Your task to perform on an android device: change keyboard looks Image 0: 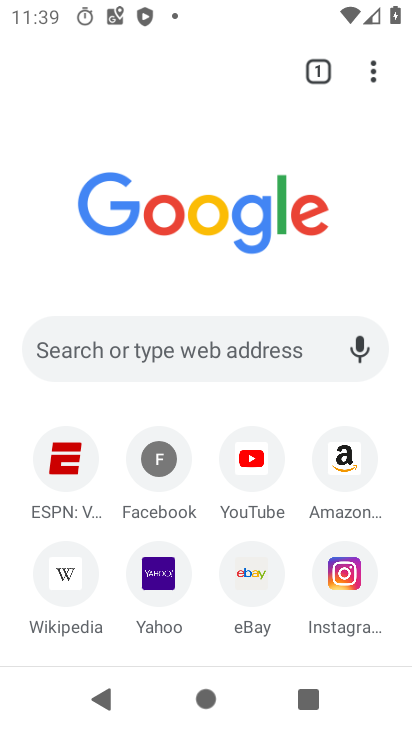
Step 0: press home button
Your task to perform on an android device: change keyboard looks Image 1: 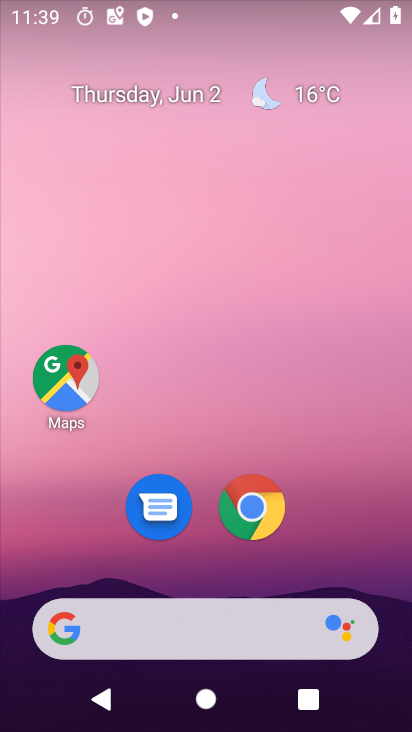
Step 1: click (390, 639)
Your task to perform on an android device: change keyboard looks Image 2: 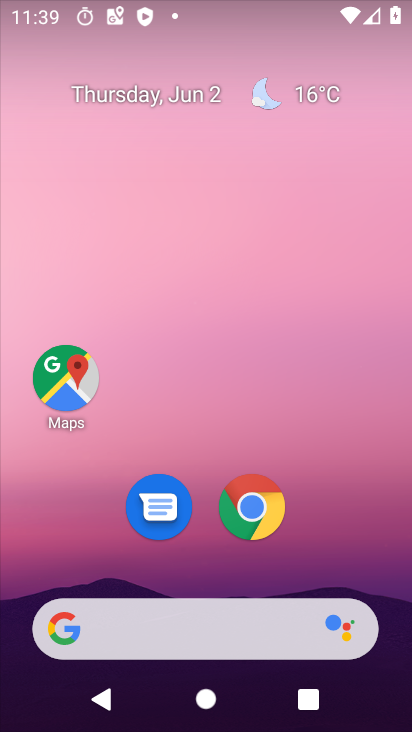
Step 2: drag from (402, 636) to (285, 47)
Your task to perform on an android device: change keyboard looks Image 3: 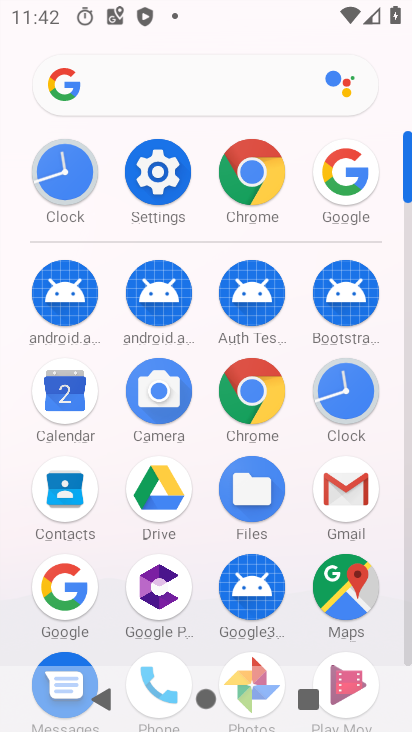
Step 3: click (155, 176)
Your task to perform on an android device: change keyboard looks Image 4: 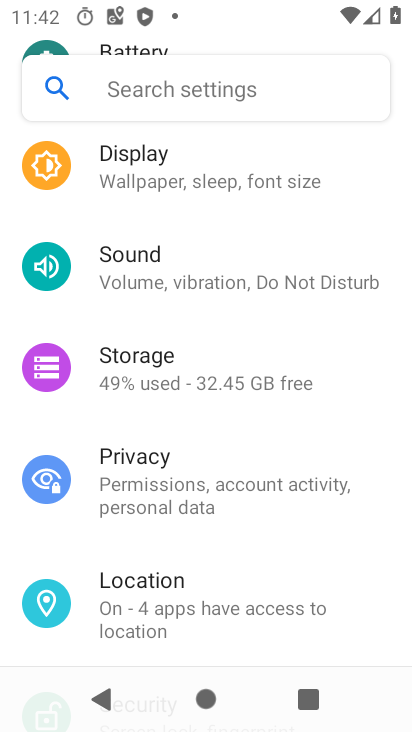
Step 4: click (230, 614)
Your task to perform on an android device: change keyboard looks Image 5: 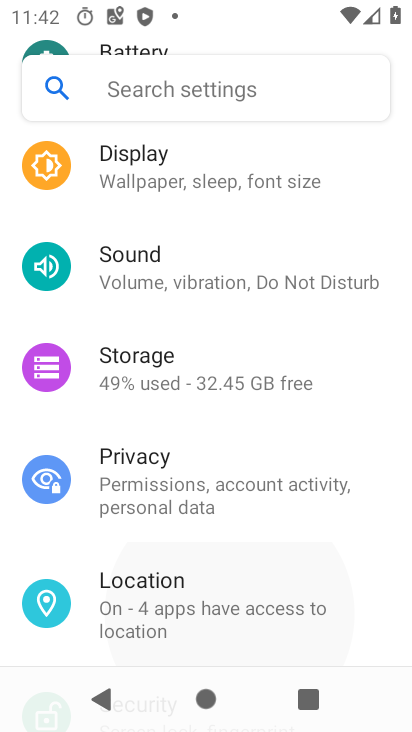
Step 5: drag from (248, 416) to (205, 36)
Your task to perform on an android device: change keyboard looks Image 6: 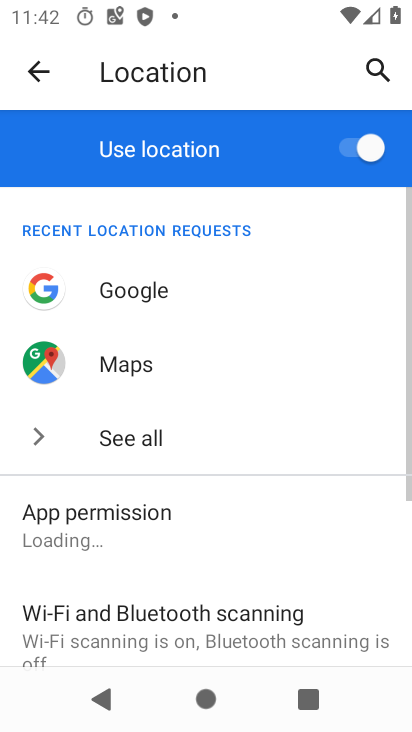
Step 6: press back button
Your task to perform on an android device: change keyboard looks Image 7: 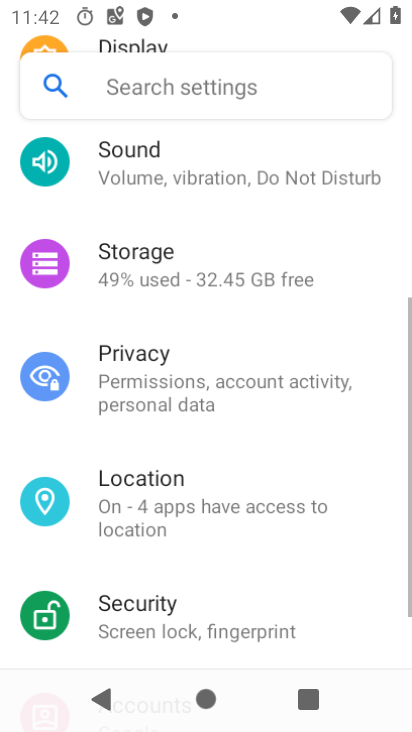
Step 7: click (178, 600)
Your task to perform on an android device: change keyboard looks Image 8: 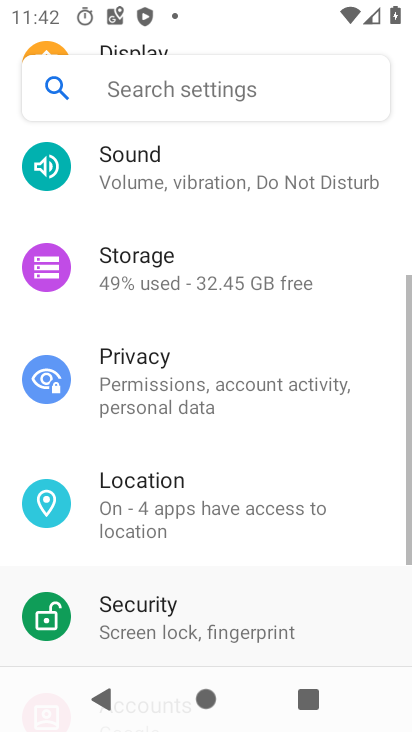
Step 8: drag from (207, 170) to (206, 118)
Your task to perform on an android device: change keyboard looks Image 9: 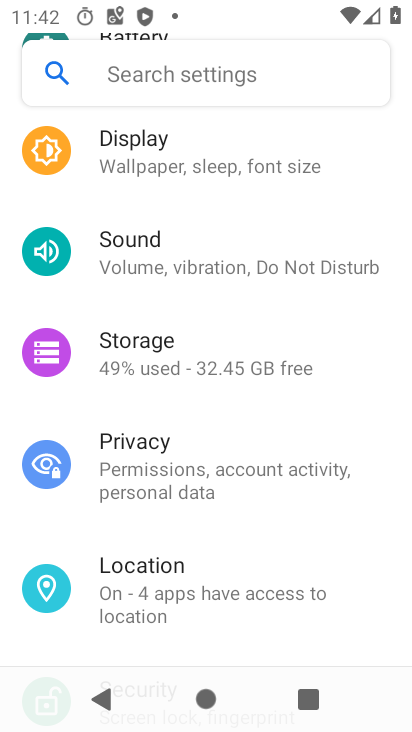
Step 9: drag from (227, 601) to (232, 57)
Your task to perform on an android device: change keyboard looks Image 10: 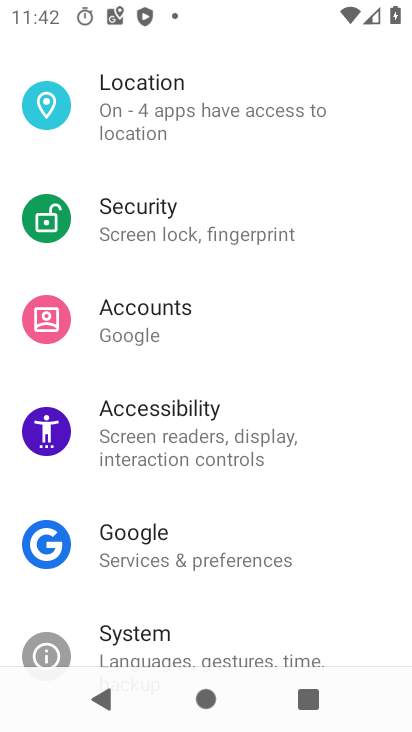
Step 10: drag from (230, 385) to (211, 54)
Your task to perform on an android device: change keyboard looks Image 11: 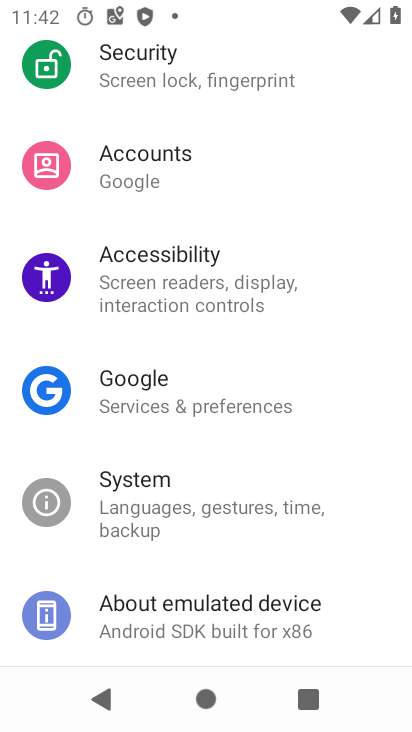
Step 11: click (167, 538)
Your task to perform on an android device: change keyboard looks Image 12: 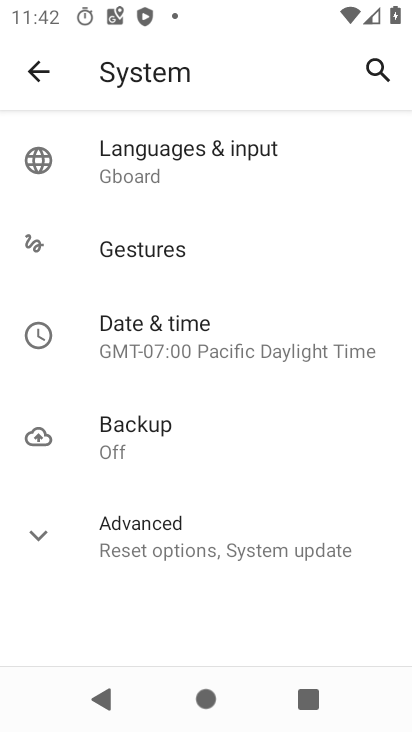
Step 12: click (198, 187)
Your task to perform on an android device: change keyboard looks Image 13: 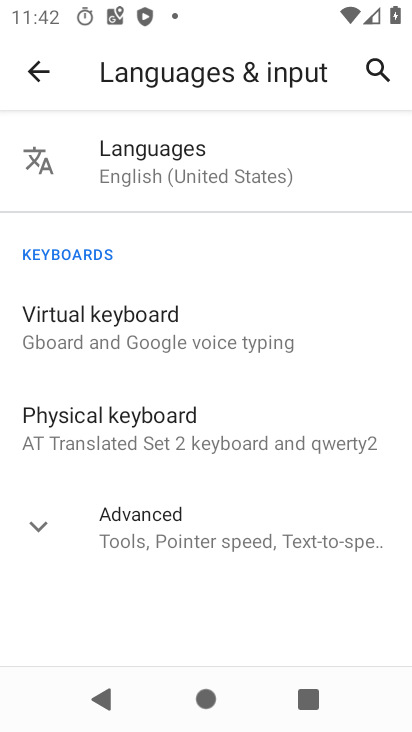
Step 13: click (132, 377)
Your task to perform on an android device: change keyboard looks Image 14: 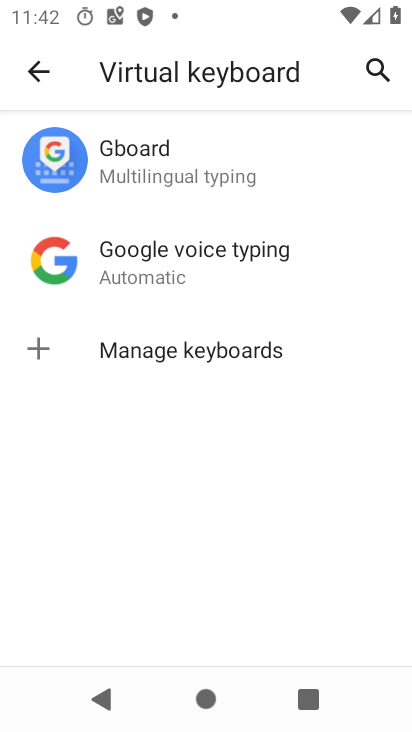
Step 14: click (246, 188)
Your task to perform on an android device: change keyboard looks Image 15: 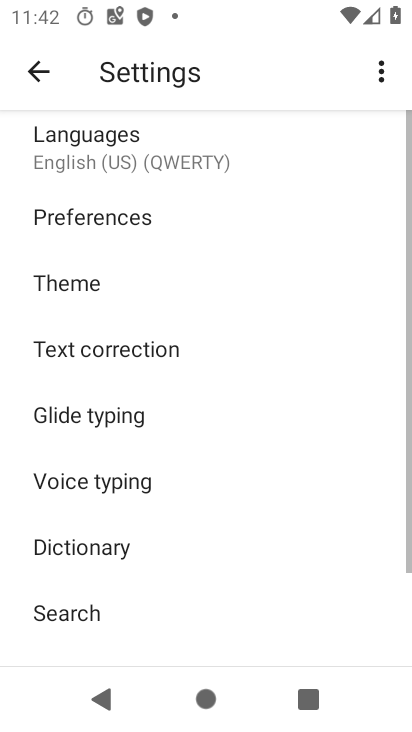
Step 15: click (102, 309)
Your task to perform on an android device: change keyboard looks Image 16: 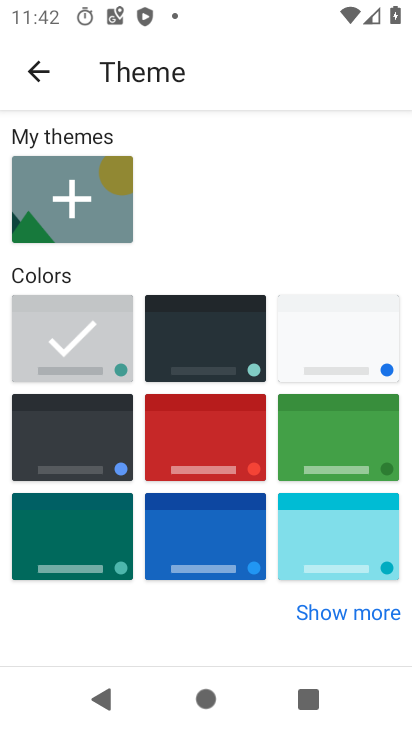
Step 16: click (203, 349)
Your task to perform on an android device: change keyboard looks Image 17: 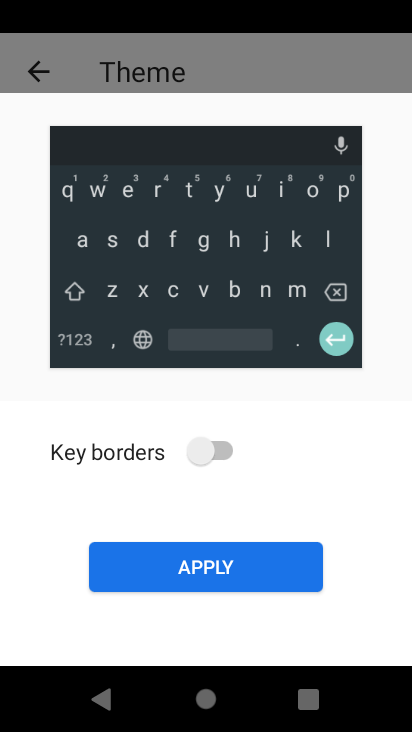
Step 17: click (222, 571)
Your task to perform on an android device: change keyboard looks Image 18: 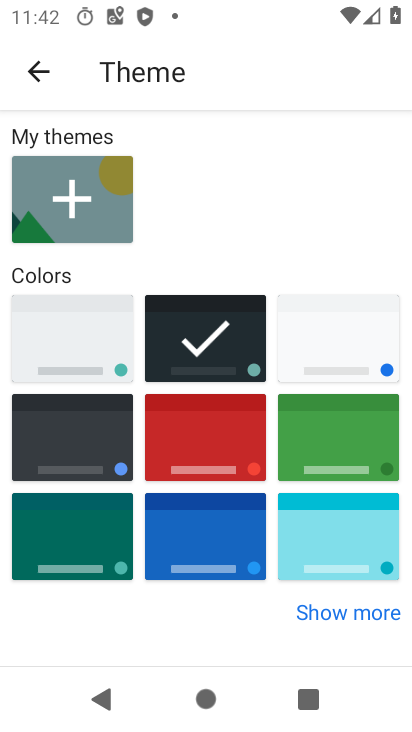
Step 18: task complete